Your task to perform on an android device: change the upload size in google photos Image 0: 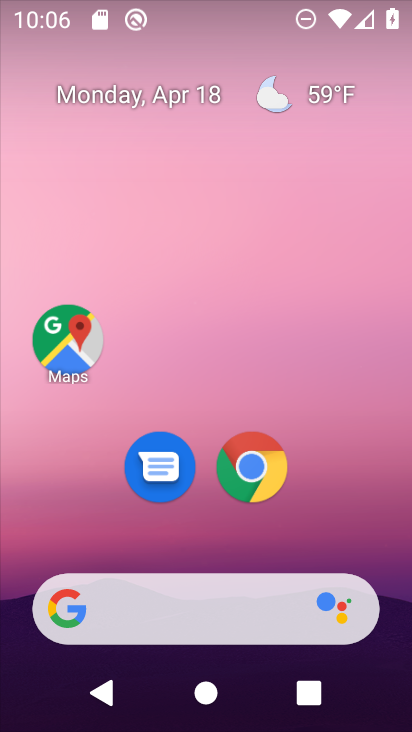
Step 0: drag from (197, 383) to (244, 0)
Your task to perform on an android device: change the upload size in google photos Image 1: 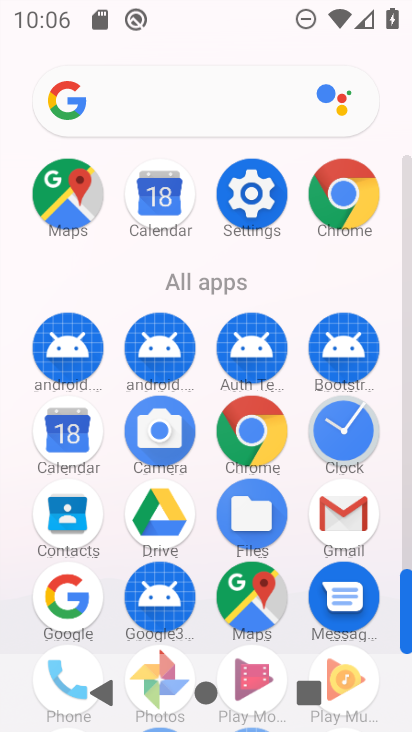
Step 1: drag from (184, 638) to (256, 183)
Your task to perform on an android device: change the upload size in google photos Image 2: 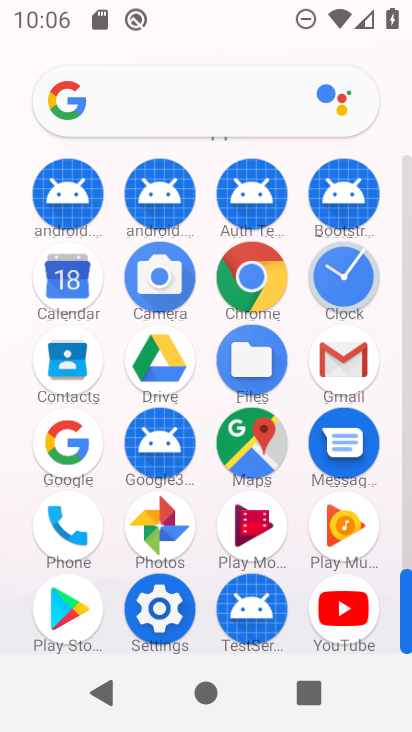
Step 2: click (163, 525)
Your task to perform on an android device: change the upload size in google photos Image 3: 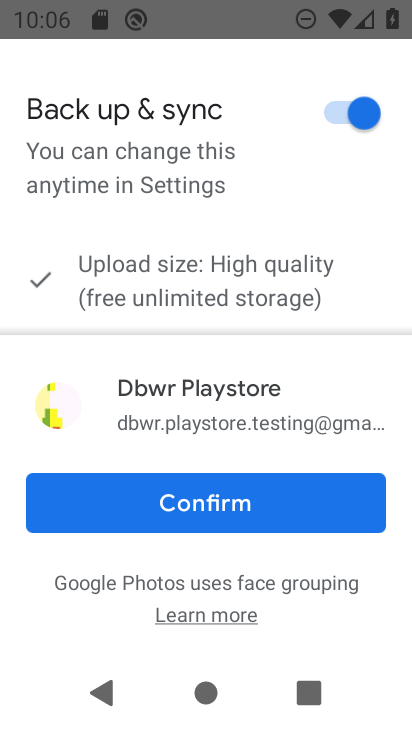
Step 3: click (219, 493)
Your task to perform on an android device: change the upload size in google photos Image 4: 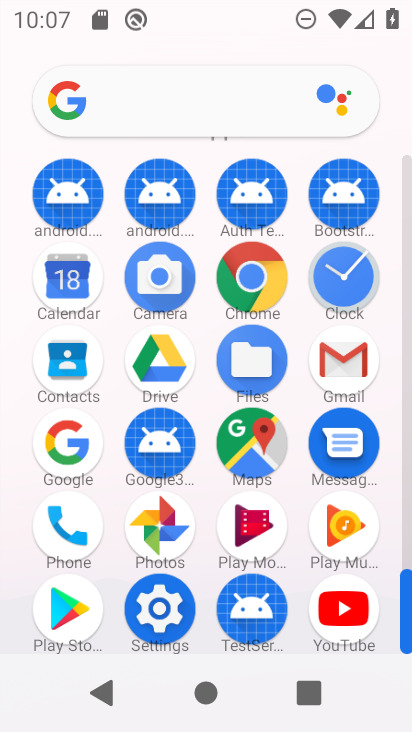
Step 4: click (161, 517)
Your task to perform on an android device: change the upload size in google photos Image 5: 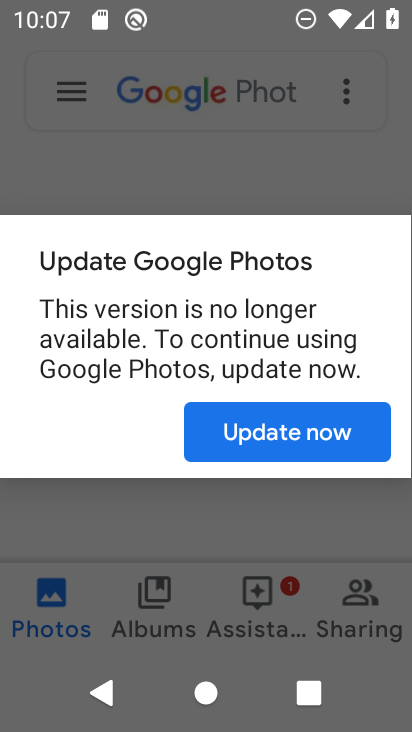
Step 5: click (164, 518)
Your task to perform on an android device: change the upload size in google photos Image 6: 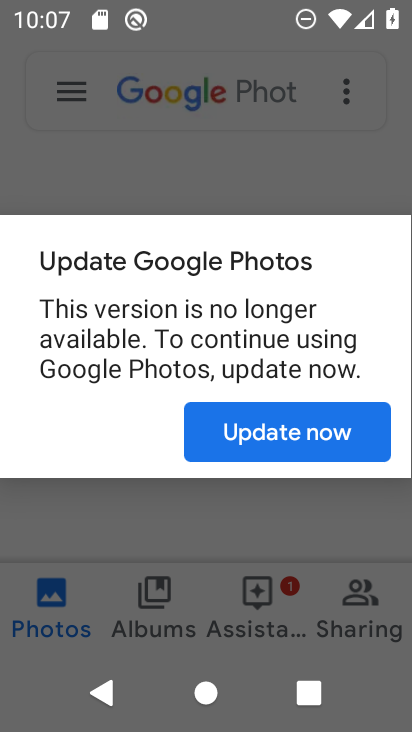
Step 6: click (132, 518)
Your task to perform on an android device: change the upload size in google photos Image 7: 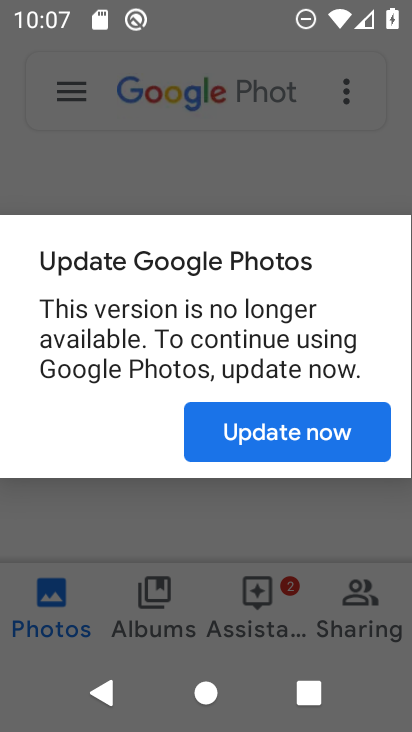
Step 7: click (193, 542)
Your task to perform on an android device: change the upload size in google photos Image 8: 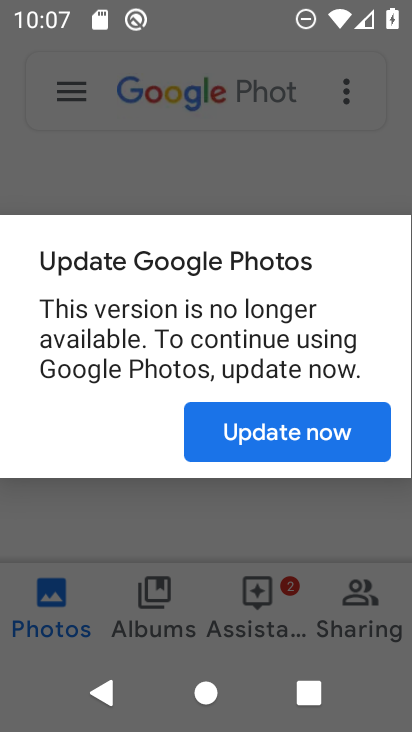
Step 8: click (292, 447)
Your task to perform on an android device: change the upload size in google photos Image 9: 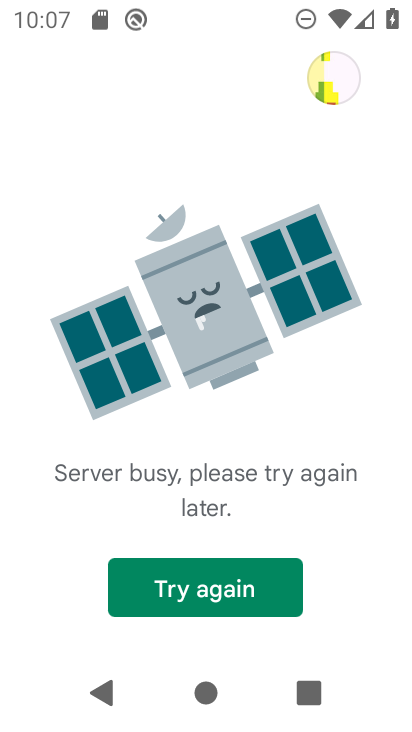
Step 9: click (231, 583)
Your task to perform on an android device: change the upload size in google photos Image 10: 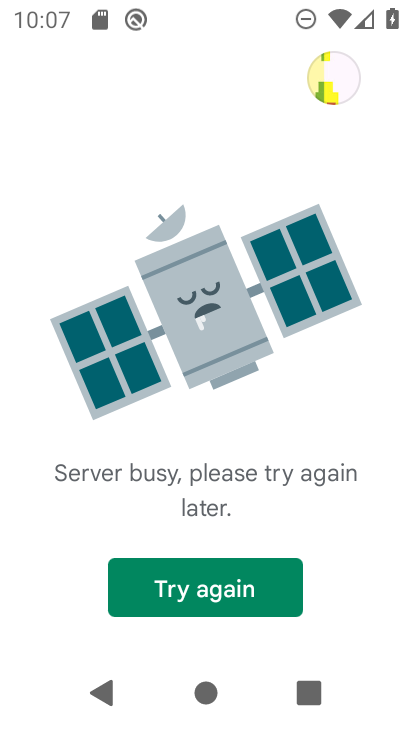
Step 10: press back button
Your task to perform on an android device: change the upload size in google photos Image 11: 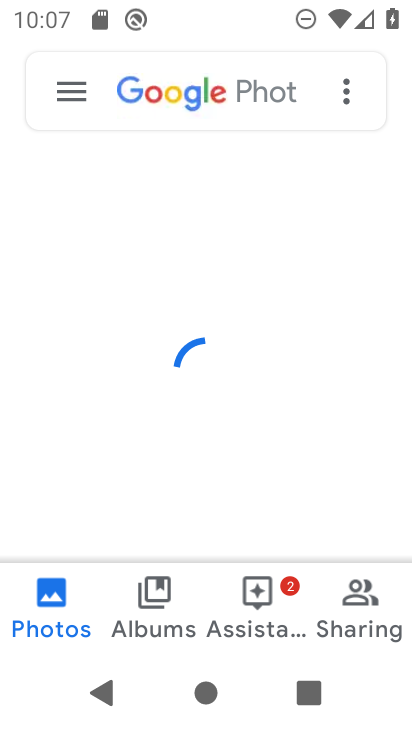
Step 11: click (78, 80)
Your task to perform on an android device: change the upload size in google photos Image 12: 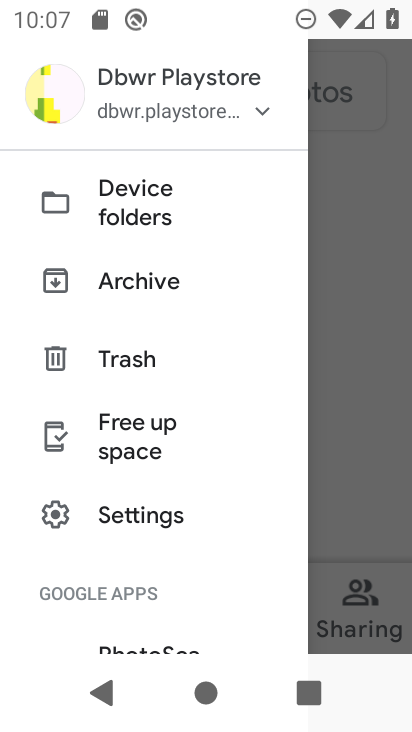
Step 12: click (178, 114)
Your task to perform on an android device: change the upload size in google photos Image 13: 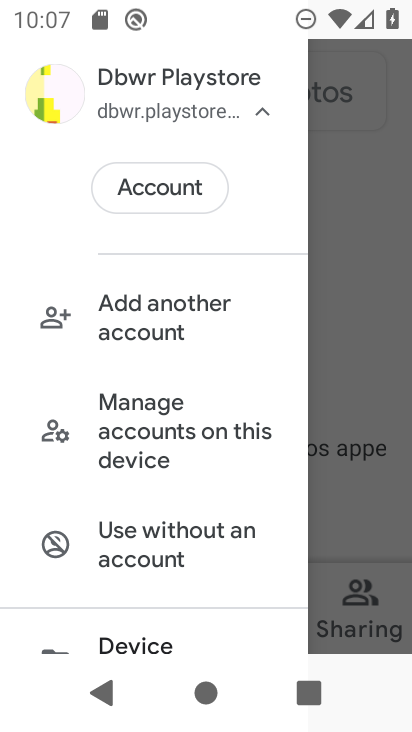
Step 13: click (152, 108)
Your task to perform on an android device: change the upload size in google photos Image 14: 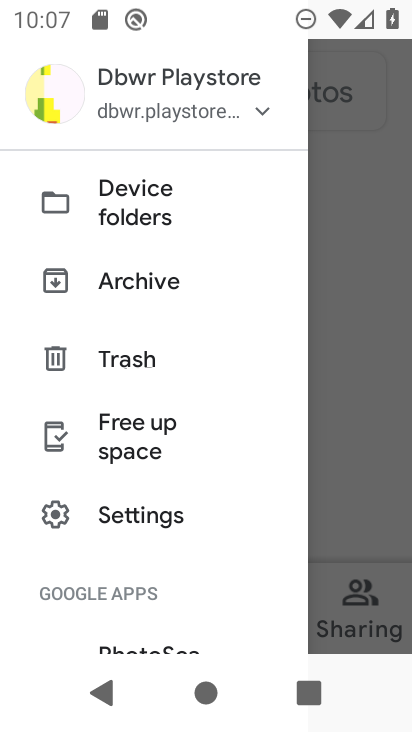
Step 14: click (152, 108)
Your task to perform on an android device: change the upload size in google photos Image 15: 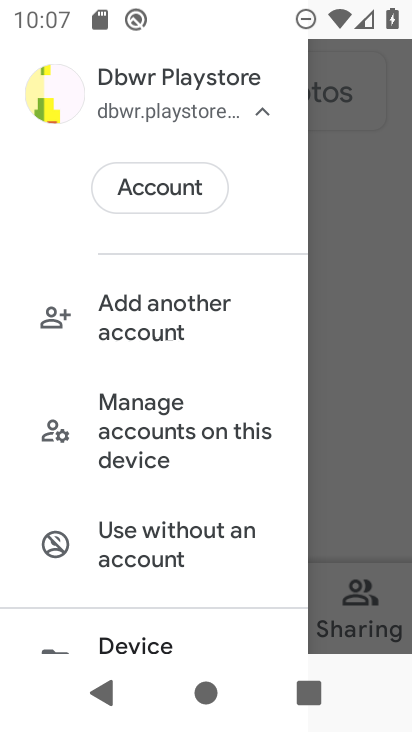
Step 15: drag from (147, 603) to (242, 141)
Your task to perform on an android device: change the upload size in google photos Image 16: 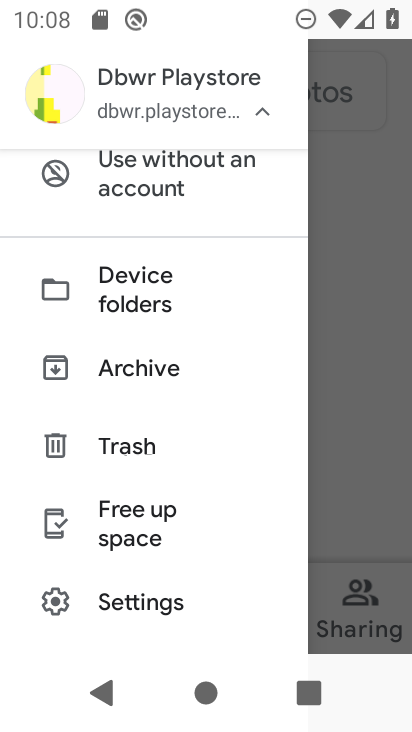
Step 16: click (147, 594)
Your task to perform on an android device: change the upload size in google photos Image 17: 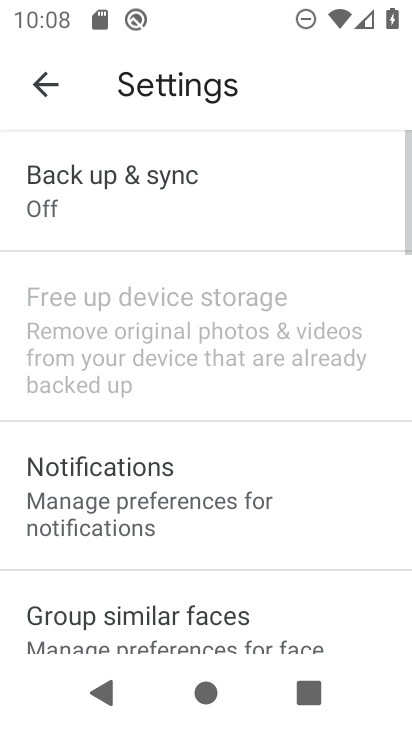
Step 17: click (165, 178)
Your task to perform on an android device: change the upload size in google photos Image 18: 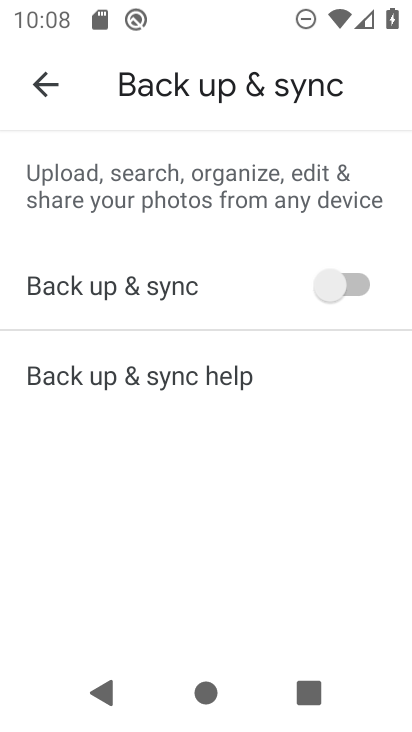
Step 18: click (330, 284)
Your task to perform on an android device: change the upload size in google photos Image 19: 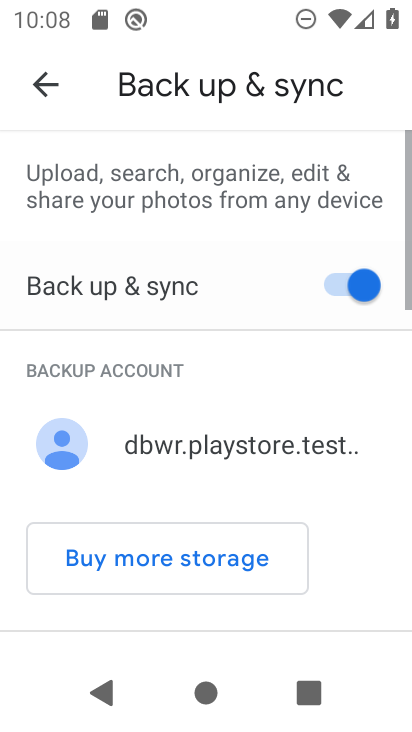
Step 19: drag from (153, 578) to (260, 87)
Your task to perform on an android device: change the upload size in google photos Image 20: 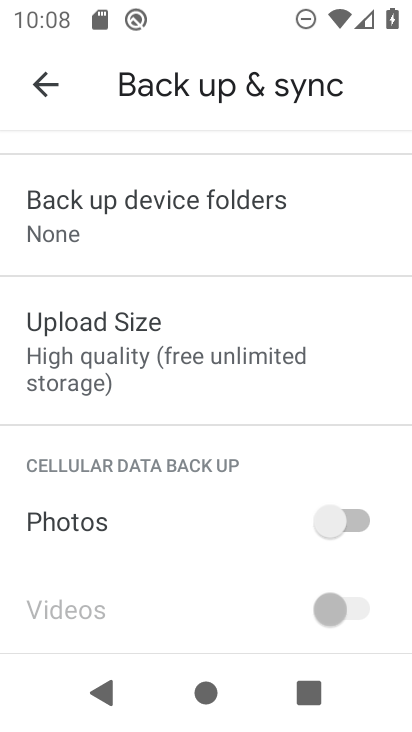
Step 20: click (101, 345)
Your task to perform on an android device: change the upload size in google photos Image 21: 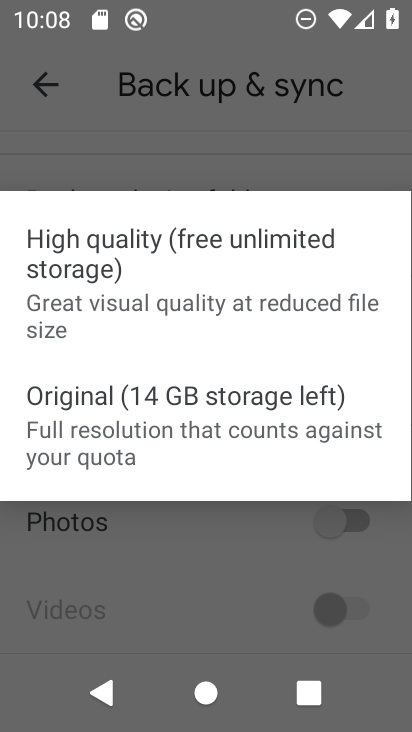
Step 21: click (100, 432)
Your task to perform on an android device: change the upload size in google photos Image 22: 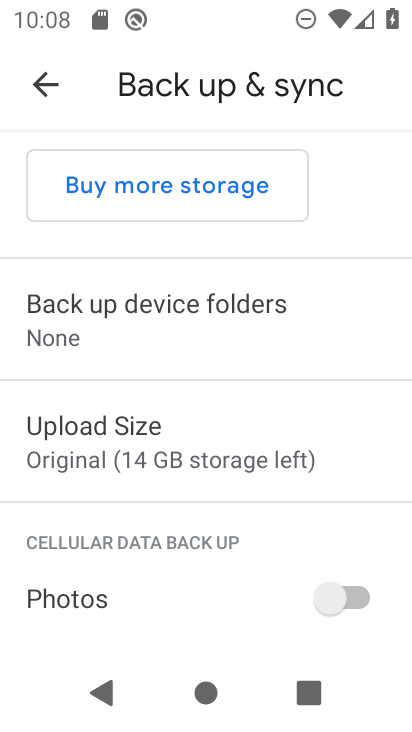
Step 22: task complete